Your task to perform on an android device: Add "macbook air" to the cart on walmart, then select checkout. Image 0: 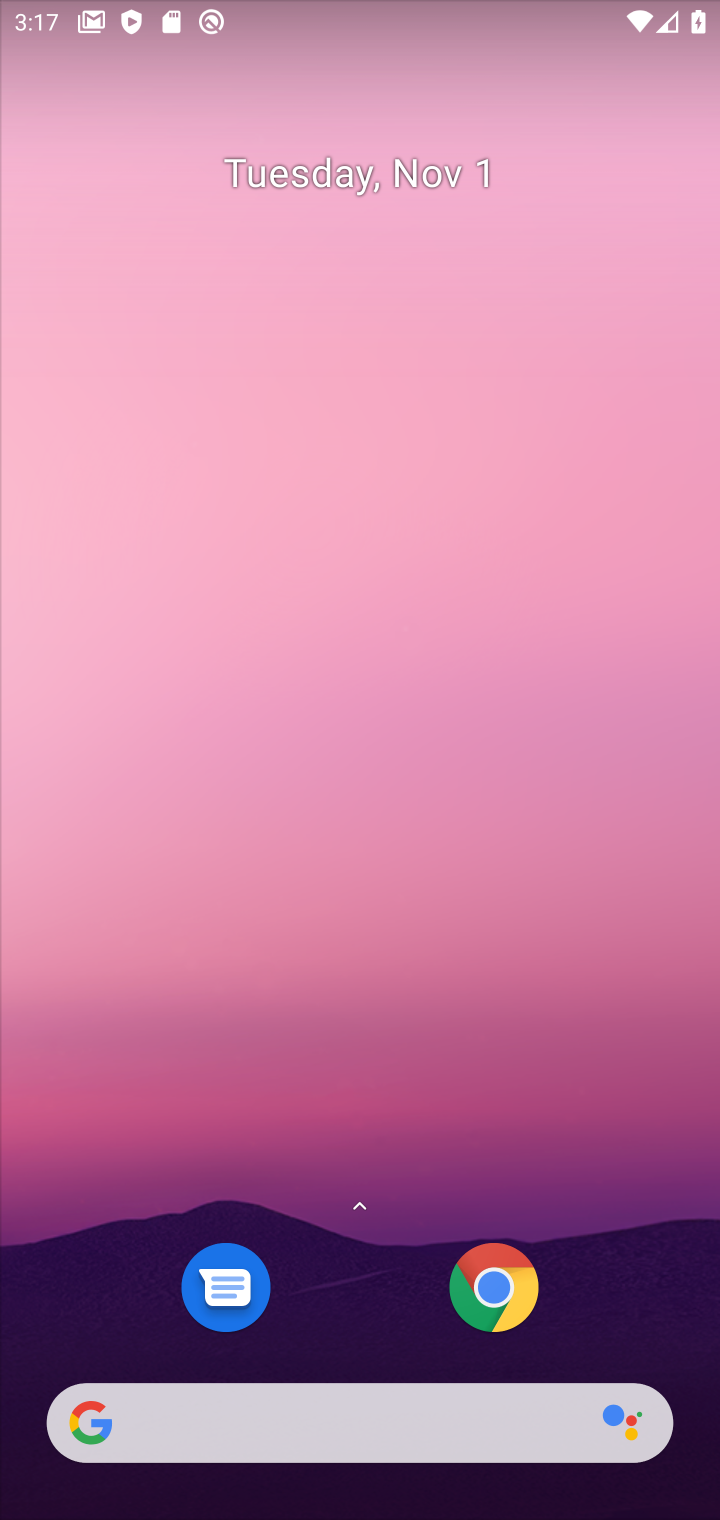
Step 0: drag from (386, 1310) to (495, 294)
Your task to perform on an android device: Add "macbook air" to the cart on walmart, then select checkout. Image 1: 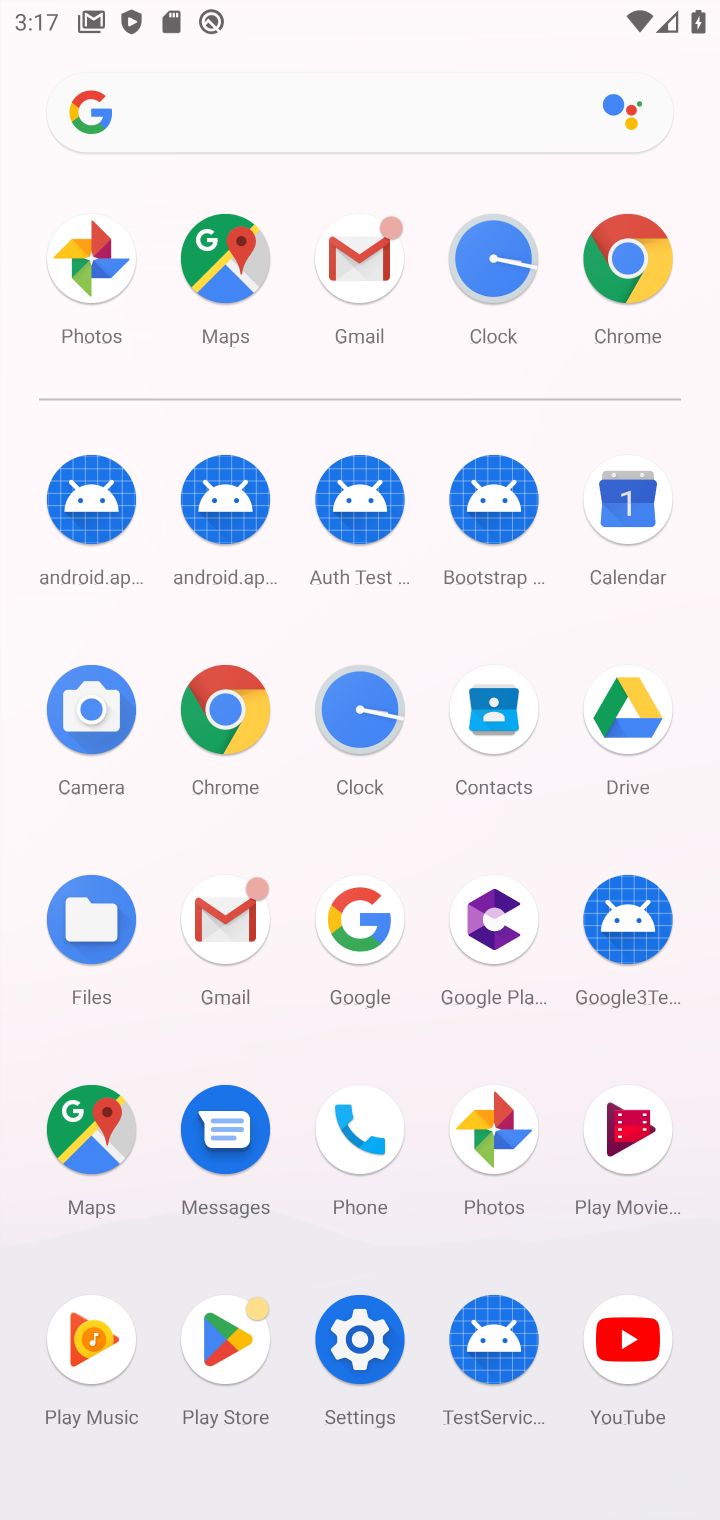
Step 1: click (217, 714)
Your task to perform on an android device: Add "macbook air" to the cart on walmart, then select checkout. Image 2: 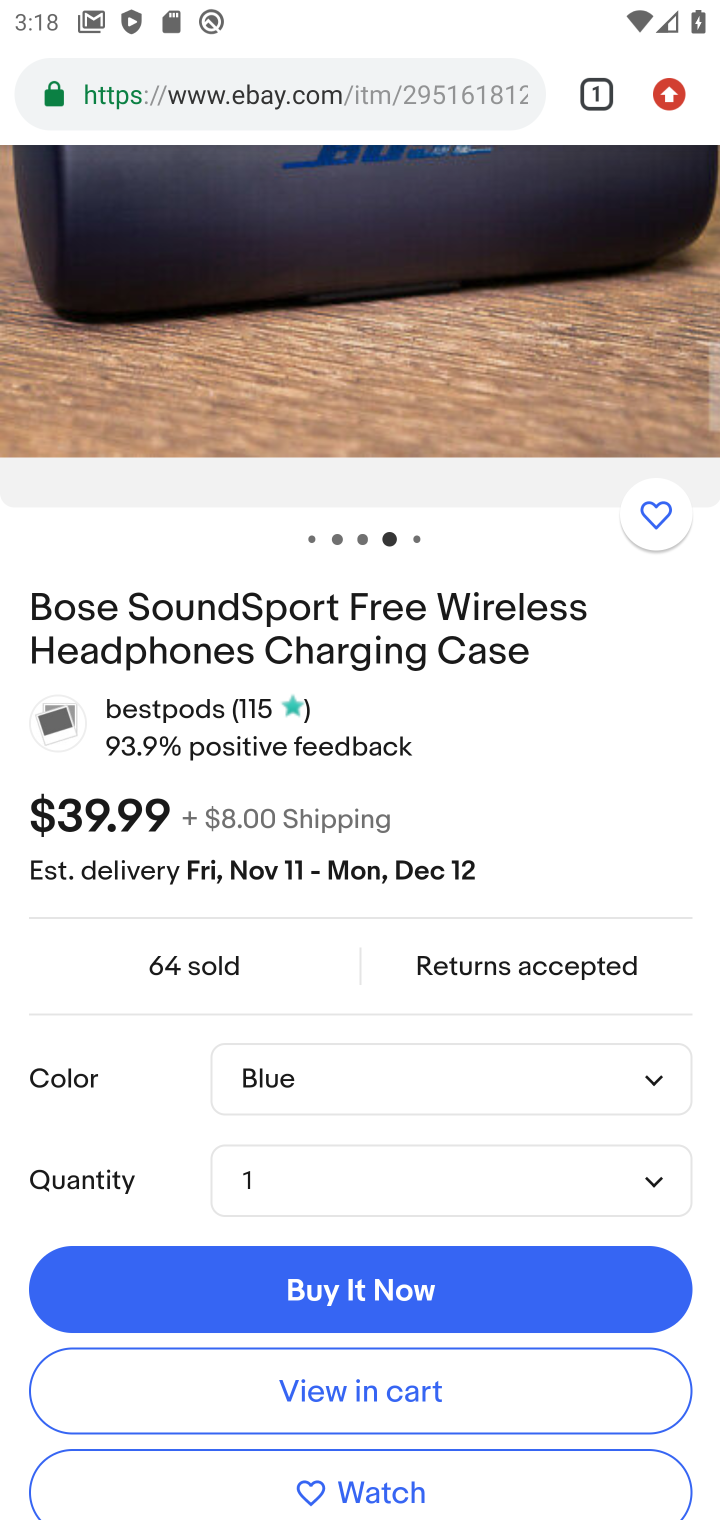
Step 2: click (391, 80)
Your task to perform on an android device: Add "macbook air" to the cart on walmart, then select checkout. Image 3: 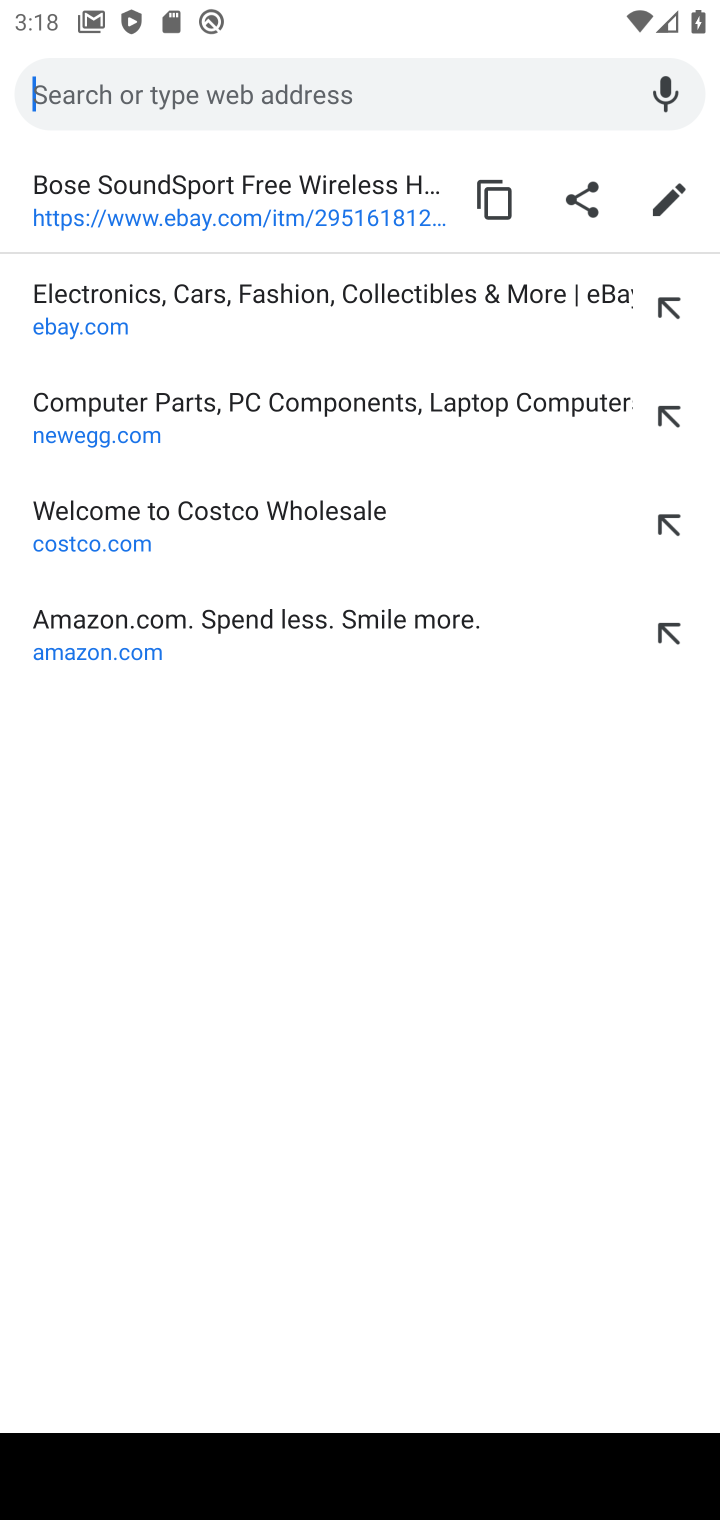
Step 3: type "walmart.com"
Your task to perform on an android device: Add "macbook air" to the cart on walmart, then select checkout. Image 4: 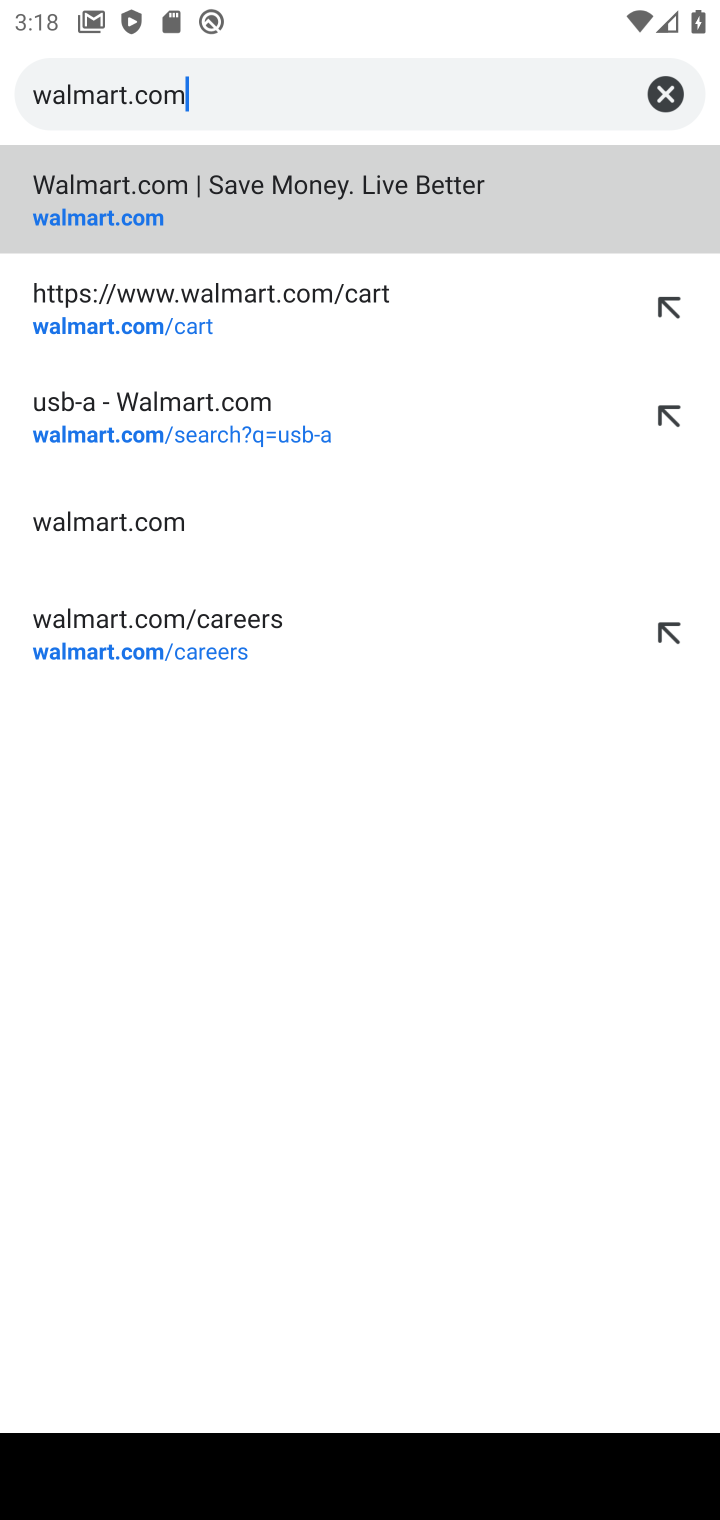
Step 4: press enter
Your task to perform on an android device: Add "macbook air" to the cart on walmart, then select checkout. Image 5: 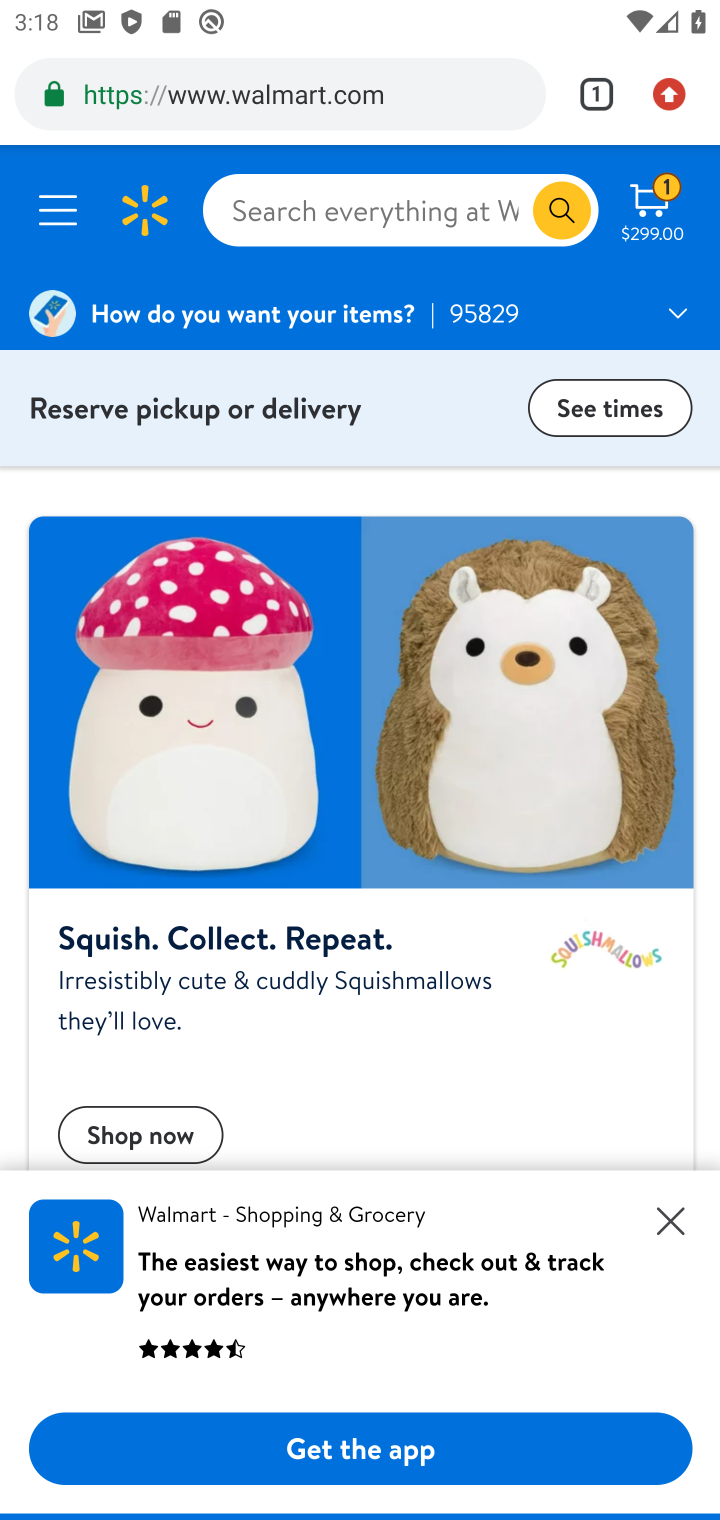
Step 5: click (237, 228)
Your task to perform on an android device: Add "macbook air" to the cart on walmart, then select checkout. Image 6: 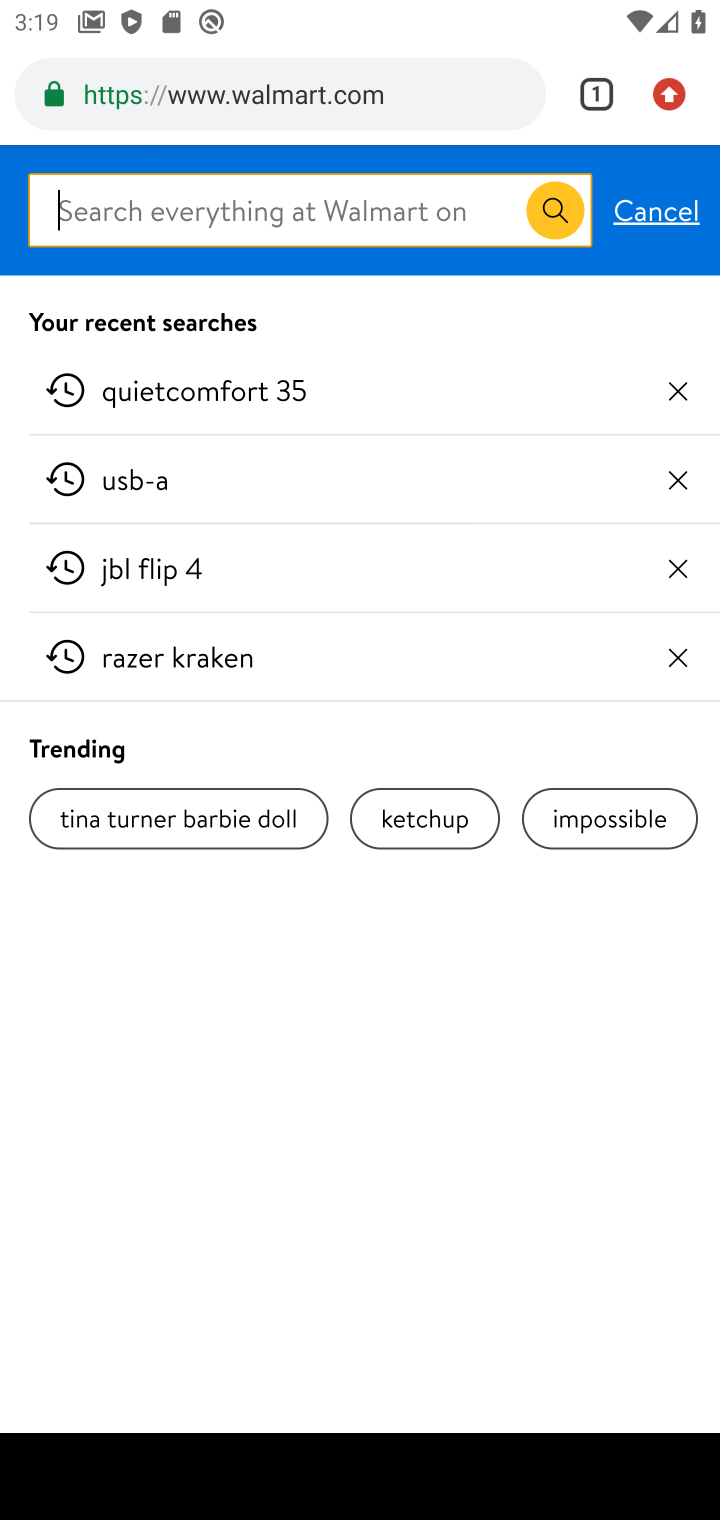
Step 6: type "macbook air"
Your task to perform on an android device: Add "macbook air" to the cart on walmart, then select checkout. Image 7: 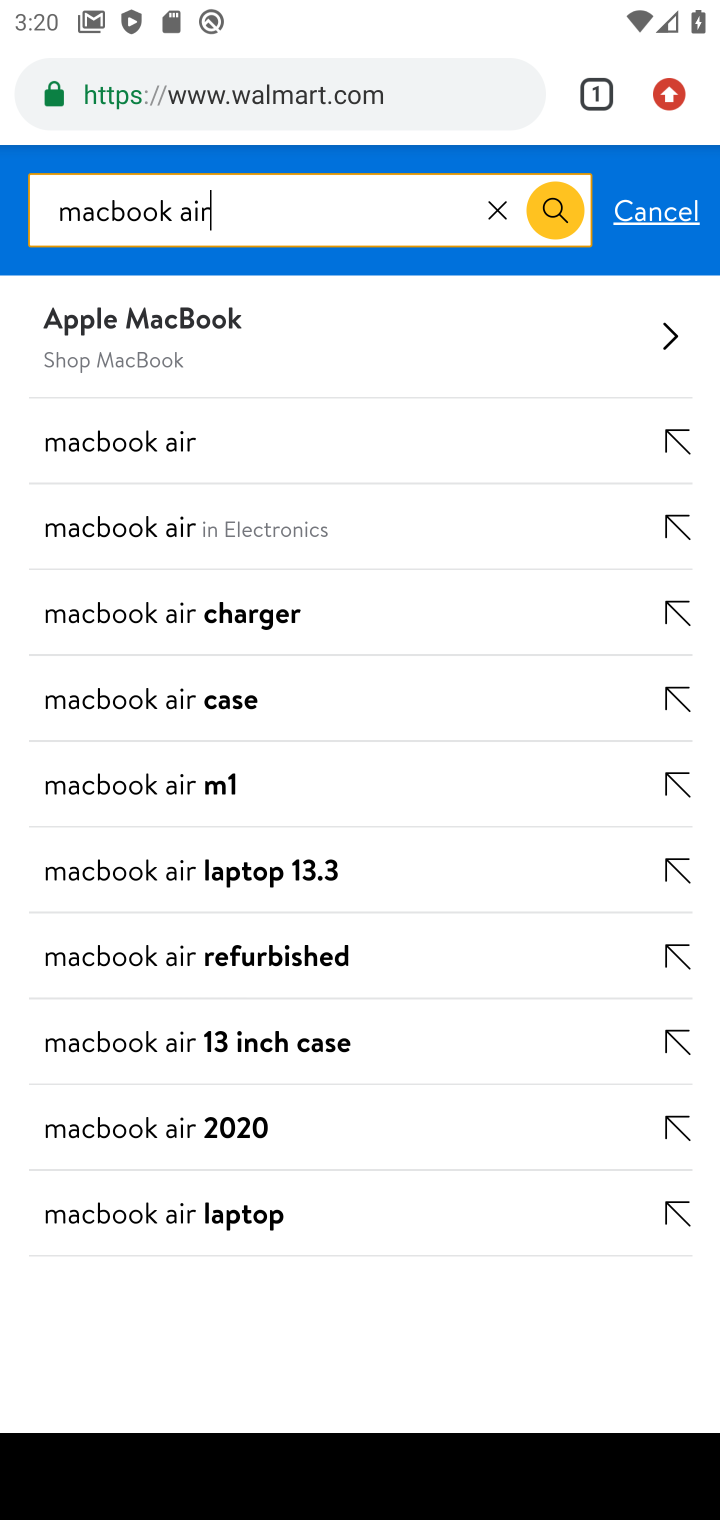
Step 7: press enter
Your task to perform on an android device: Add "macbook air" to the cart on walmart, then select checkout. Image 8: 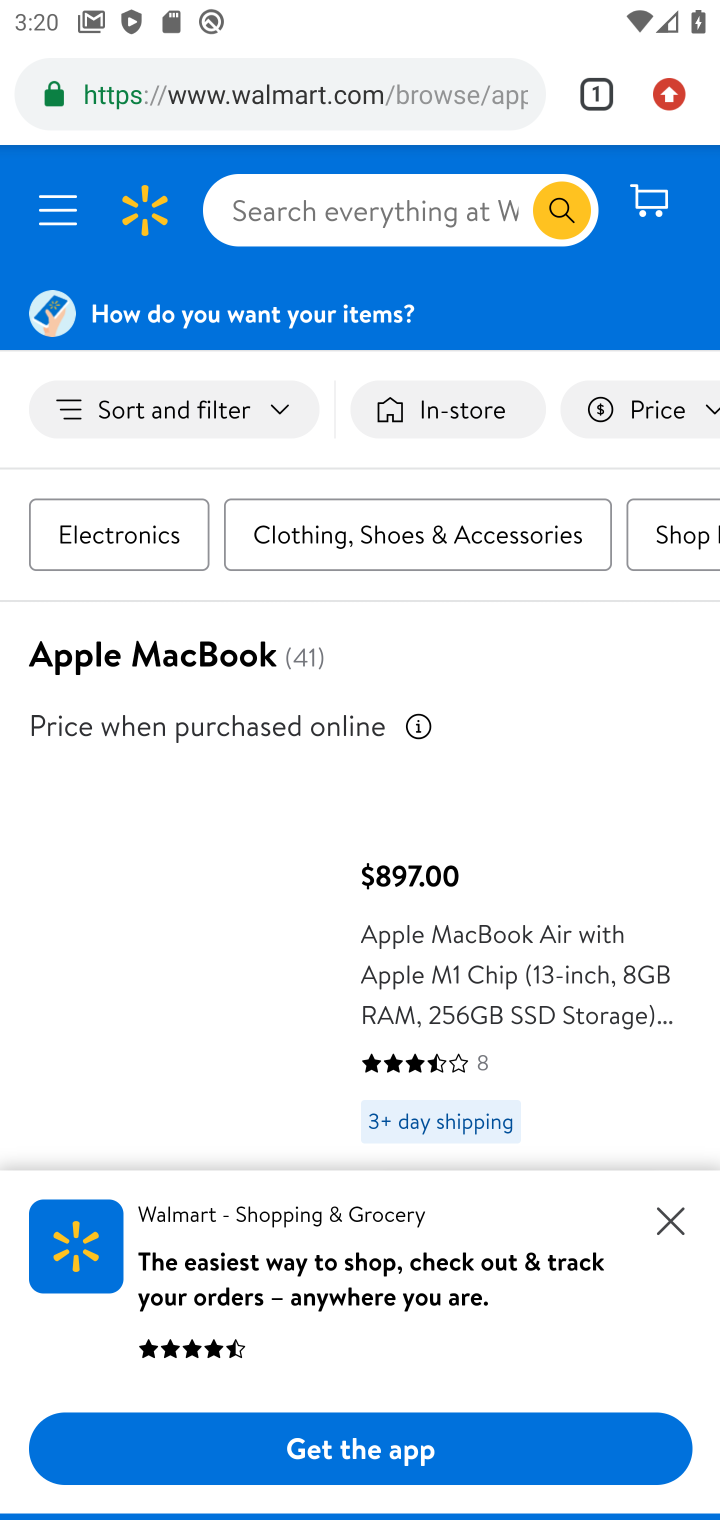
Step 8: drag from (212, 1057) to (447, 190)
Your task to perform on an android device: Add "macbook air" to the cart on walmart, then select checkout. Image 9: 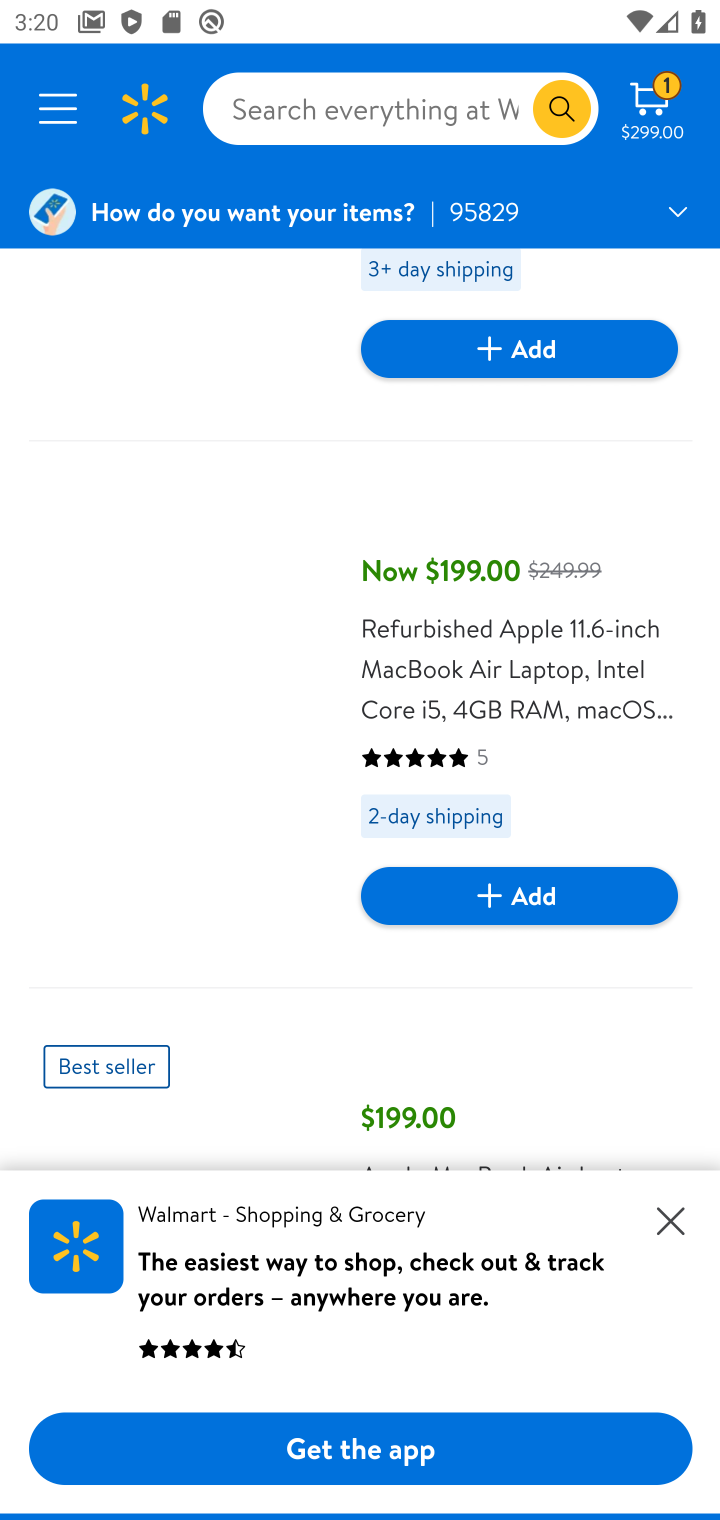
Step 9: drag from (566, 527) to (455, 1365)
Your task to perform on an android device: Add "macbook air" to the cart on walmart, then select checkout. Image 10: 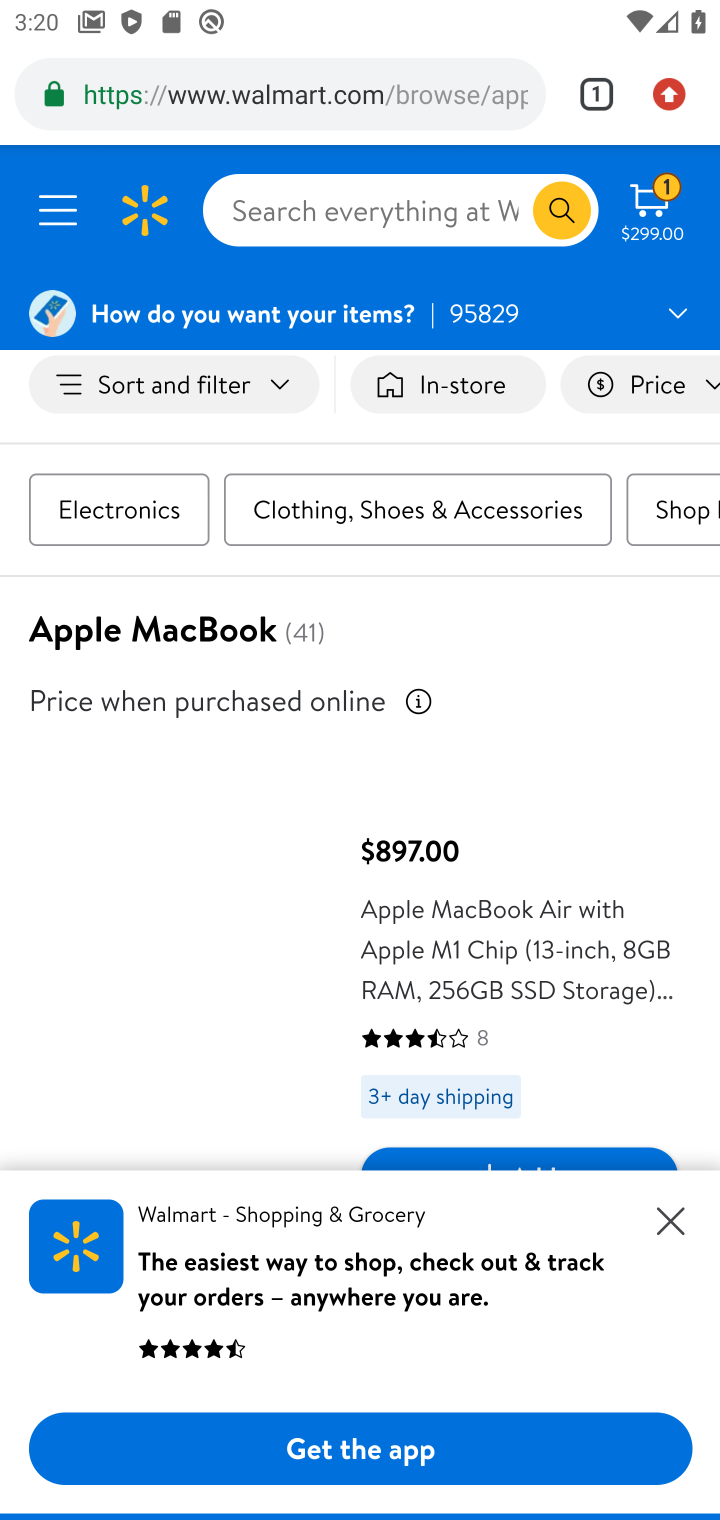
Step 10: drag from (511, 863) to (512, 484)
Your task to perform on an android device: Add "macbook air" to the cart on walmart, then select checkout. Image 11: 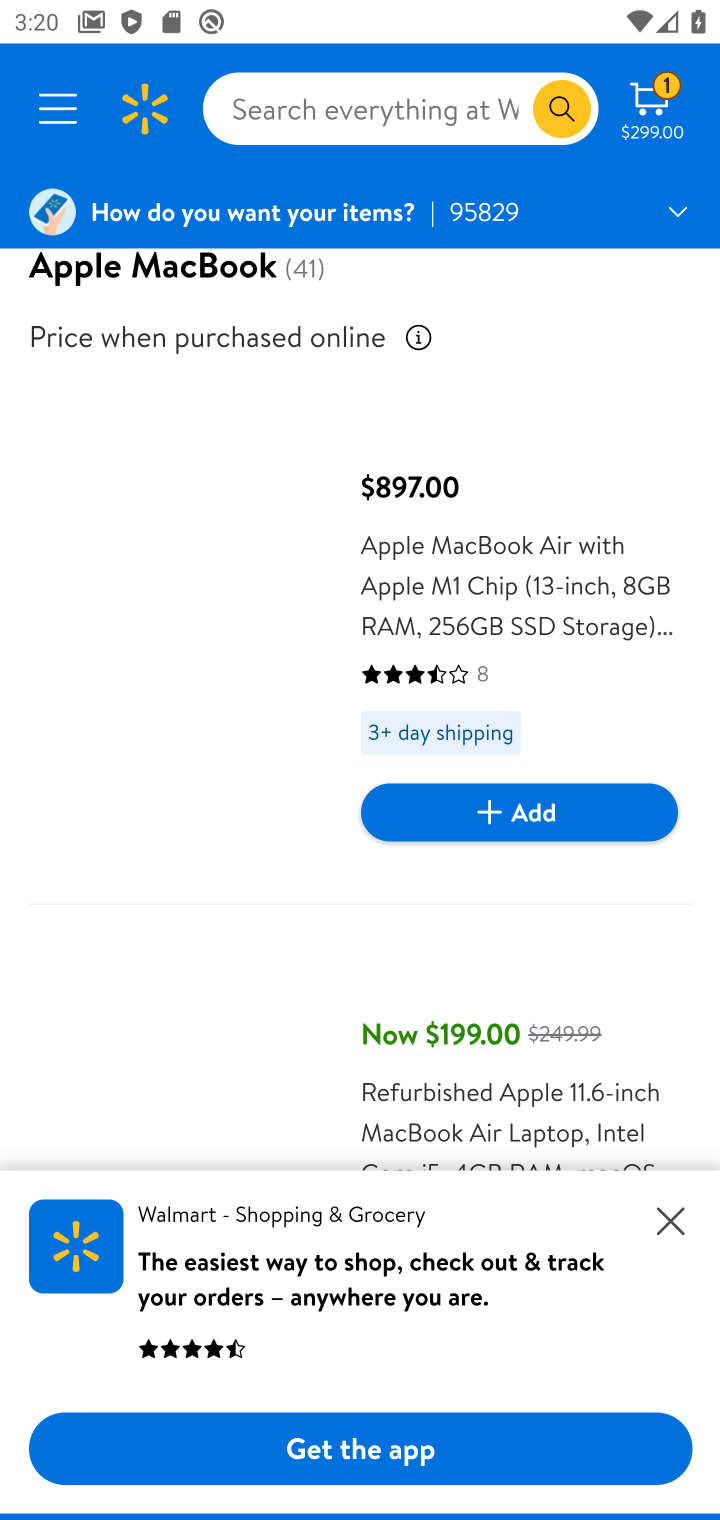
Step 11: click (554, 814)
Your task to perform on an android device: Add "macbook air" to the cart on walmart, then select checkout. Image 12: 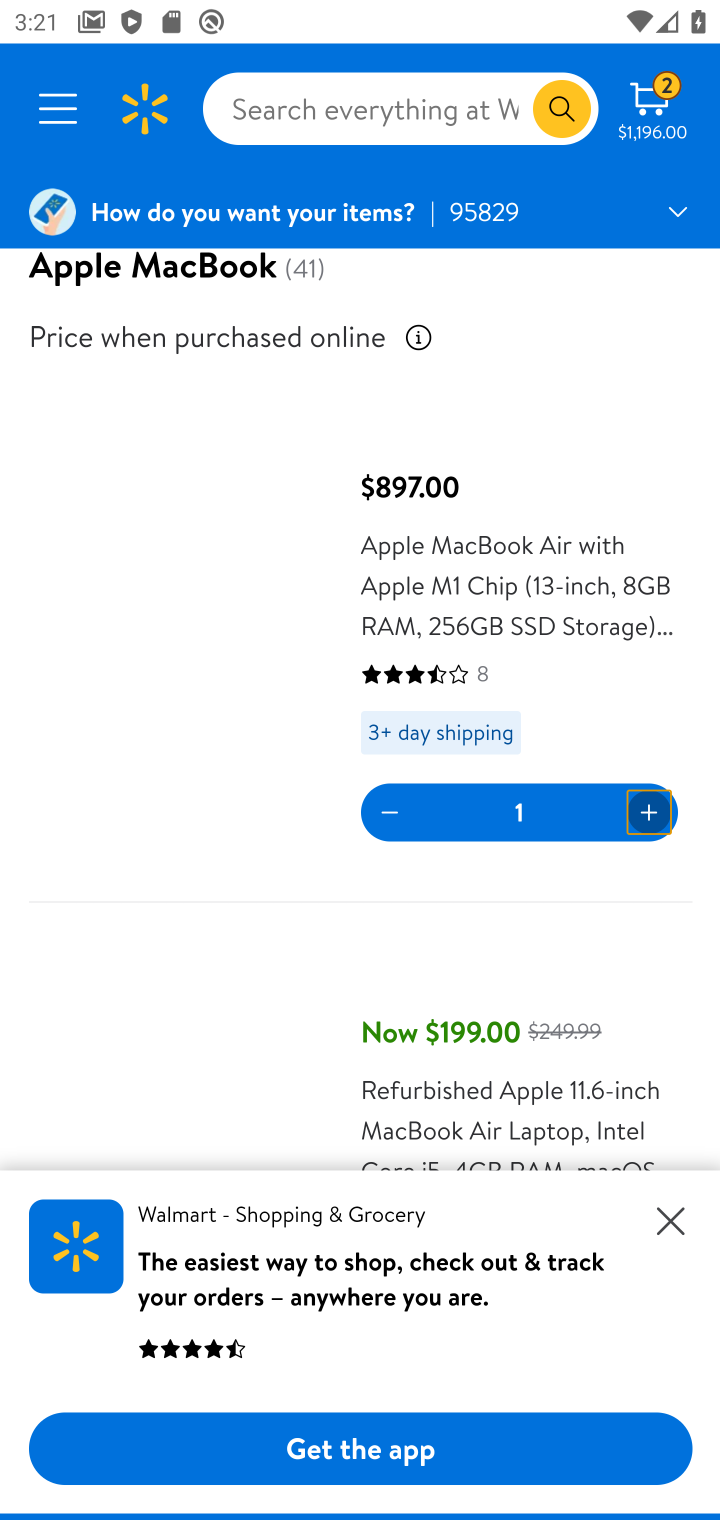
Step 12: task complete